Your task to perform on an android device: Toggle the flashlight Image 0: 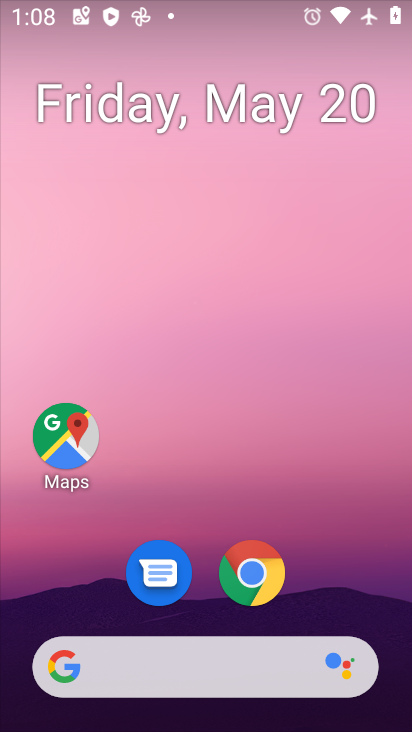
Step 0: drag from (348, 574) to (314, 79)
Your task to perform on an android device: Toggle the flashlight Image 1: 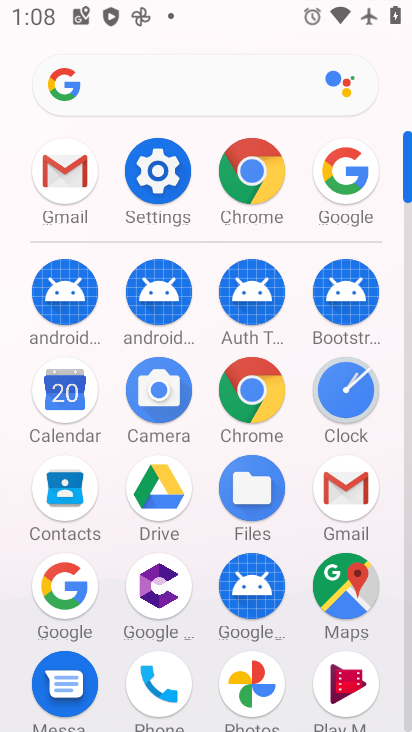
Step 1: click (158, 179)
Your task to perform on an android device: Toggle the flashlight Image 2: 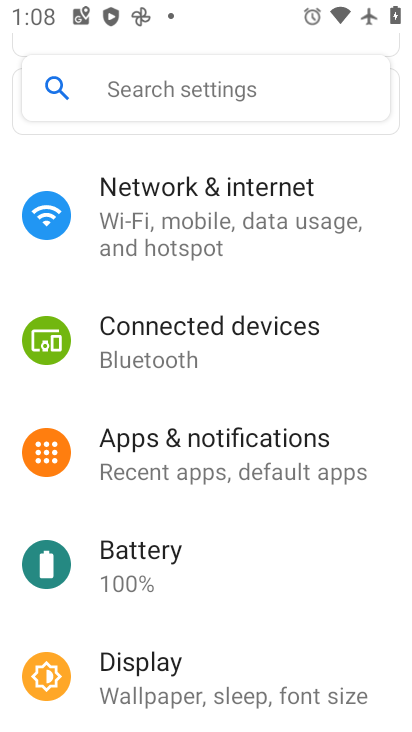
Step 2: click (178, 87)
Your task to perform on an android device: Toggle the flashlight Image 3: 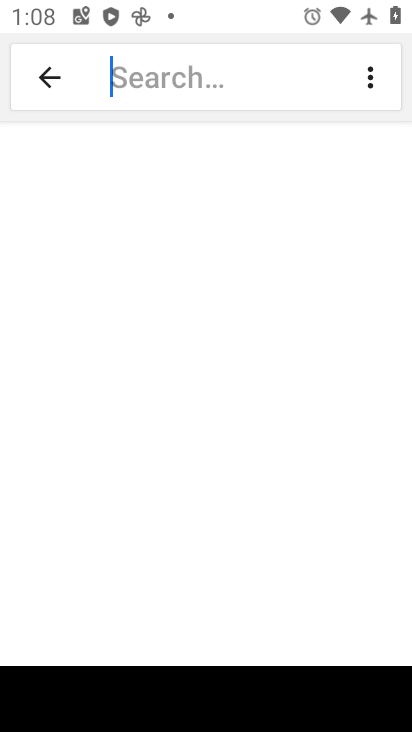
Step 3: type "flash"
Your task to perform on an android device: Toggle the flashlight Image 4: 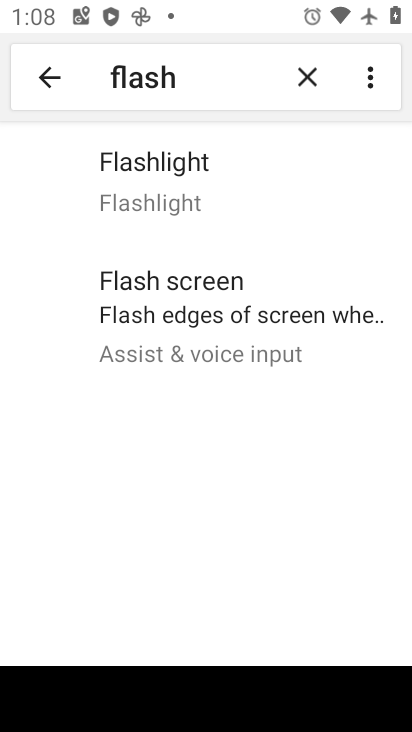
Step 4: task complete